Your task to perform on an android device: turn on notifications settings in the gmail app Image 0: 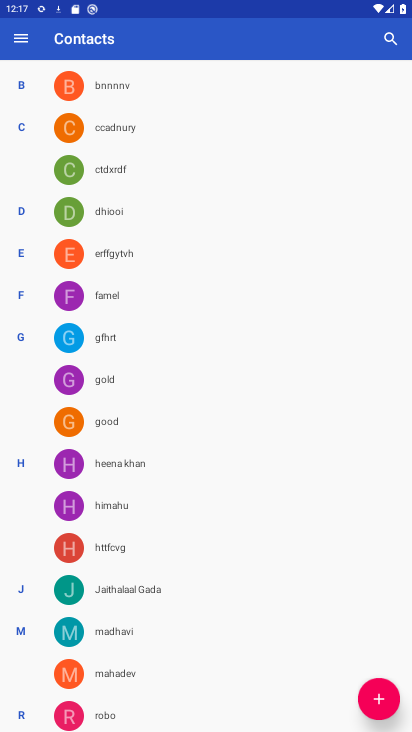
Step 0: press home button
Your task to perform on an android device: turn on notifications settings in the gmail app Image 1: 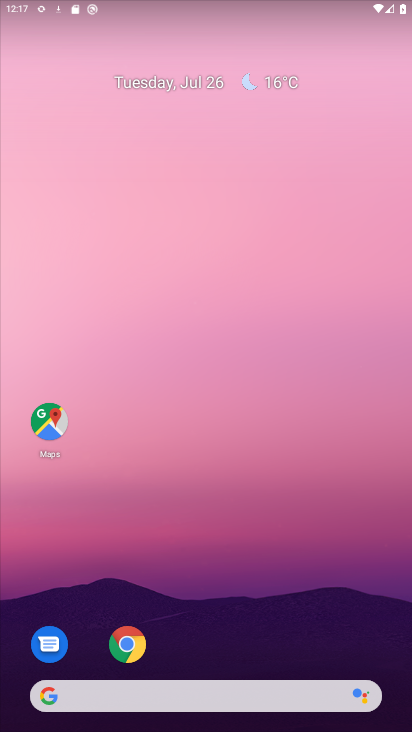
Step 1: drag from (256, 630) to (224, 132)
Your task to perform on an android device: turn on notifications settings in the gmail app Image 2: 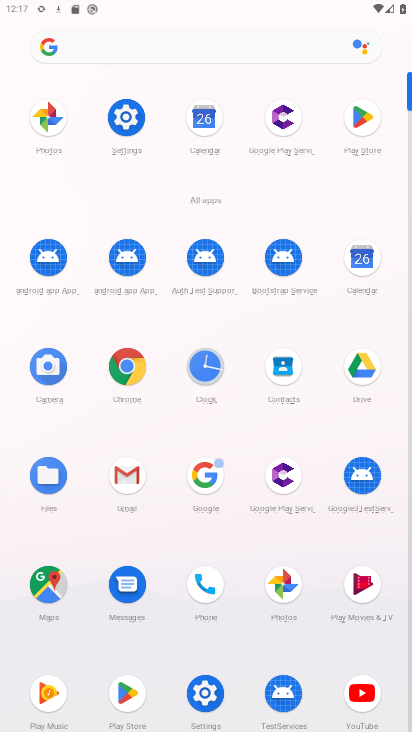
Step 2: click (111, 466)
Your task to perform on an android device: turn on notifications settings in the gmail app Image 3: 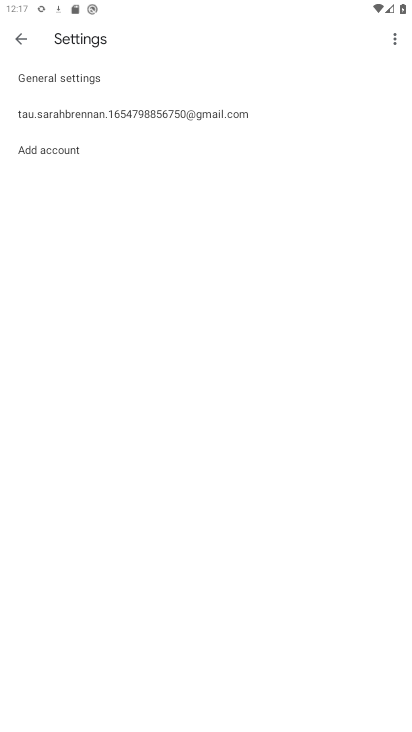
Step 3: click (40, 111)
Your task to perform on an android device: turn on notifications settings in the gmail app Image 4: 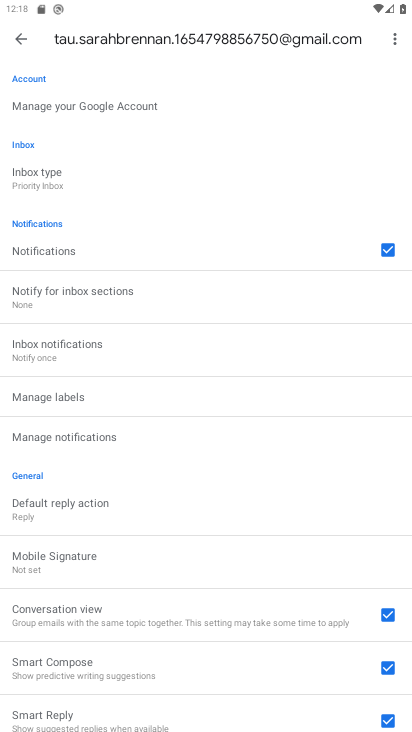
Step 4: click (105, 438)
Your task to perform on an android device: turn on notifications settings in the gmail app Image 5: 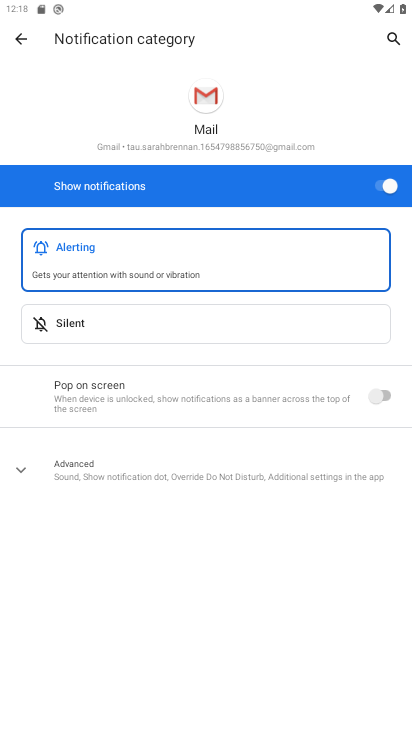
Step 5: task complete